Your task to perform on an android device: toggle notification dots Image 0: 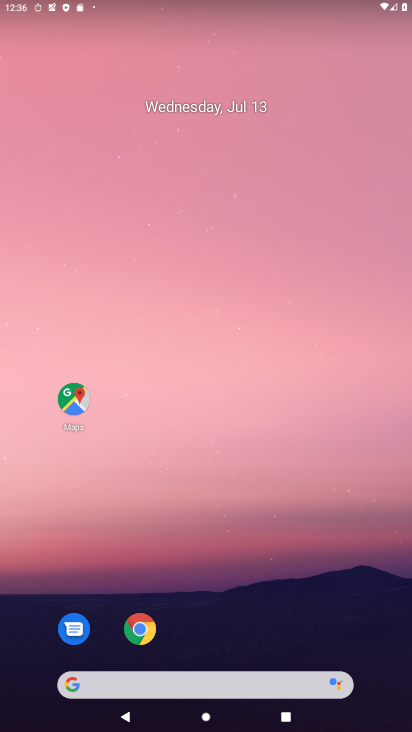
Step 0: drag from (227, 606) to (177, 114)
Your task to perform on an android device: toggle notification dots Image 1: 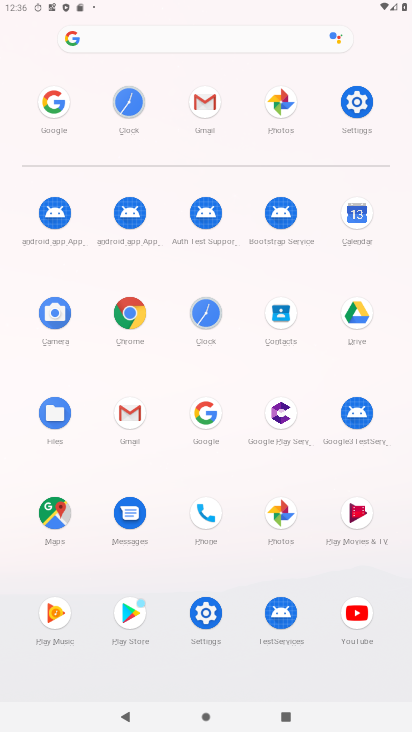
Step 1: click (352, 109)
Your task to perform on an android device: toggle notification dots Image 2: 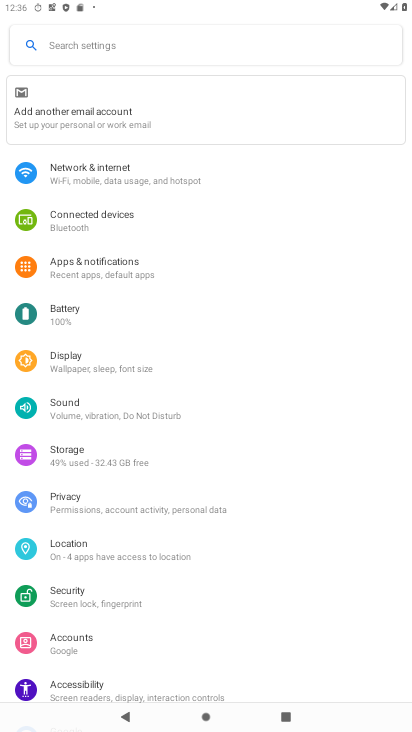
Step 2: click (133, 267)
Your task to perform on an android device: toggle notification dots Image 3: 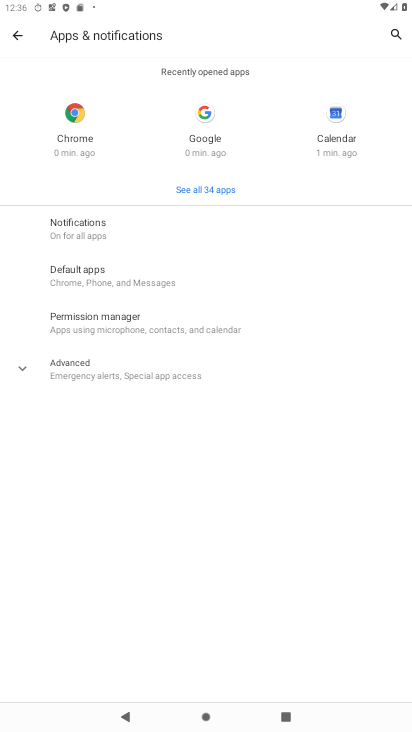
Step 3: click (105, 244)
Your task to perform on an android device: toggle notification dots Image 4: 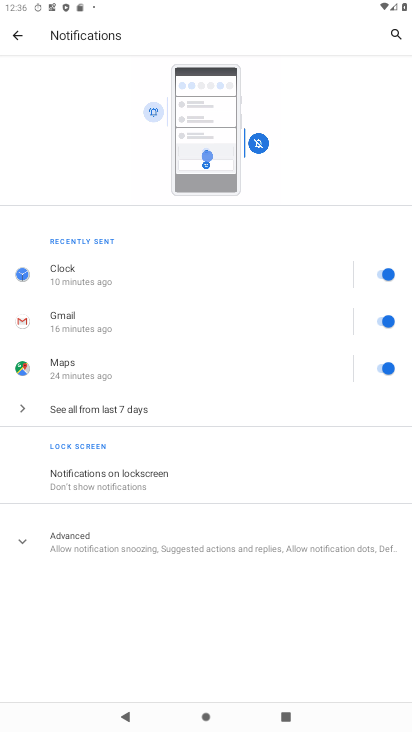
Step 4: click (187, 552)
Your task to perform on an android device: toggle notification dots Image 5: 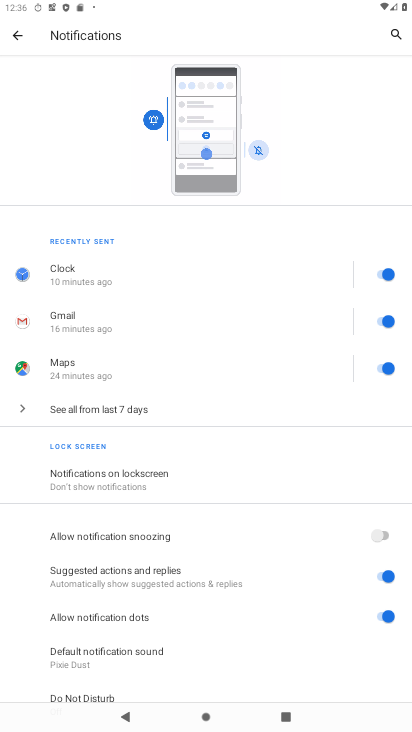
Step 5: click (377, 614)
Your task to perform on an android device: toggle notification dots Image 6: 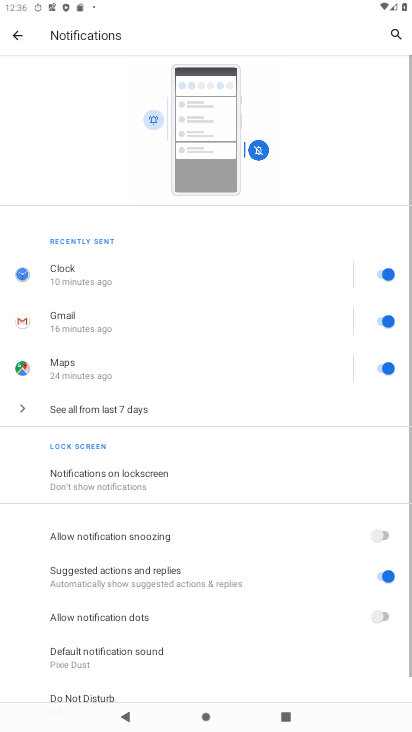
Step 6: task complete